Your task to perform on an android device: Search for "acer nitro" on newegg, select the first entry, and add it to the cart. Image 0: 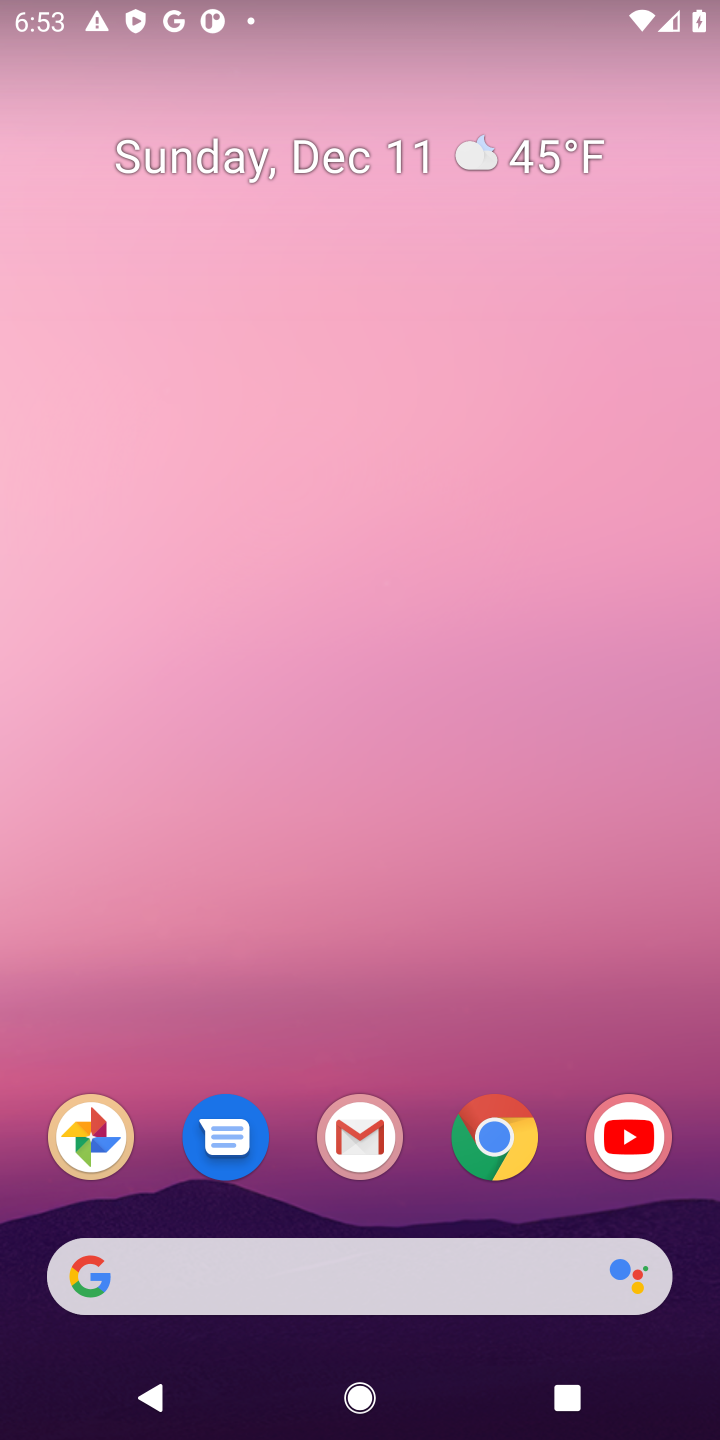
Step 0: click (491, 1153)
Your task to perform on an android device: Search for "acer nitro" on newegg, select the first entry, and add it to the cart. Image 1: 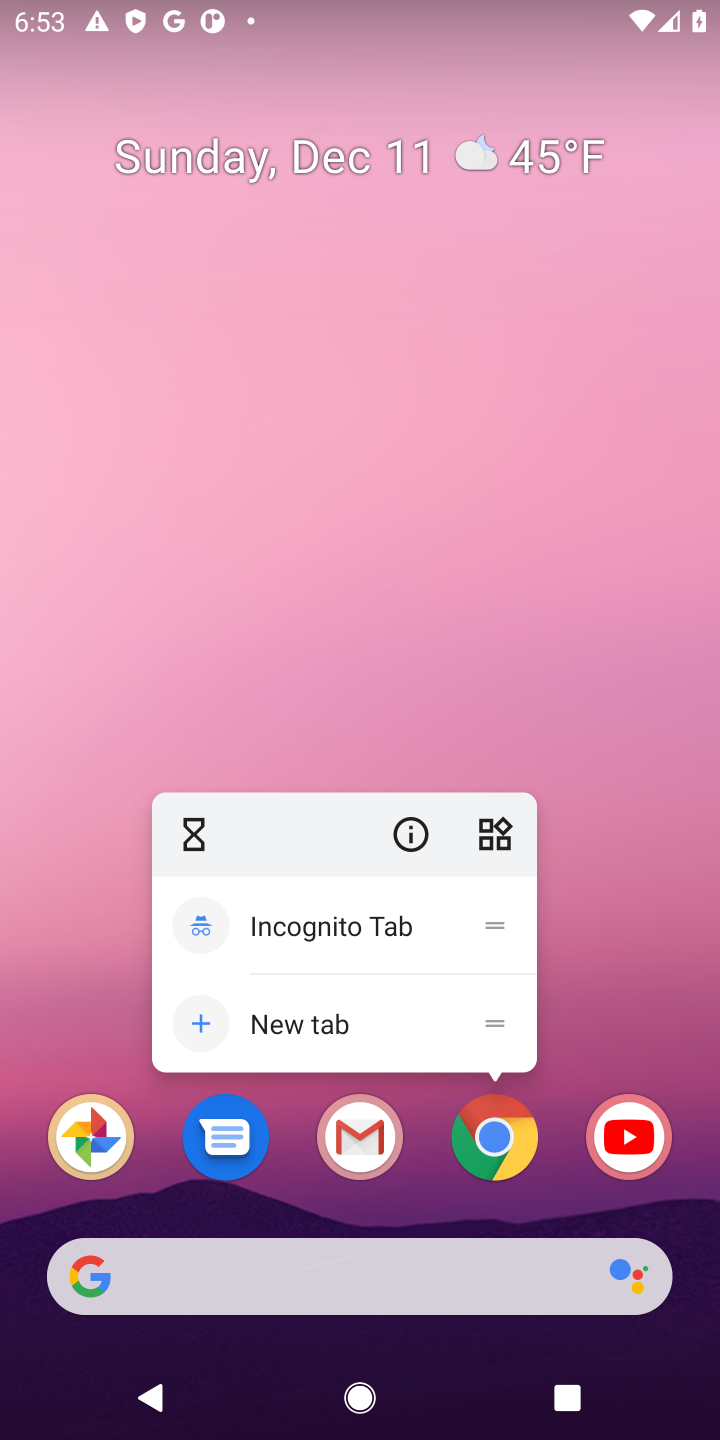
Step 1: click (341, 1012)
Your task to perform on an android device: Search for "acer nitro" on newegg, select the first entry, and add it to the cart. Image 2: 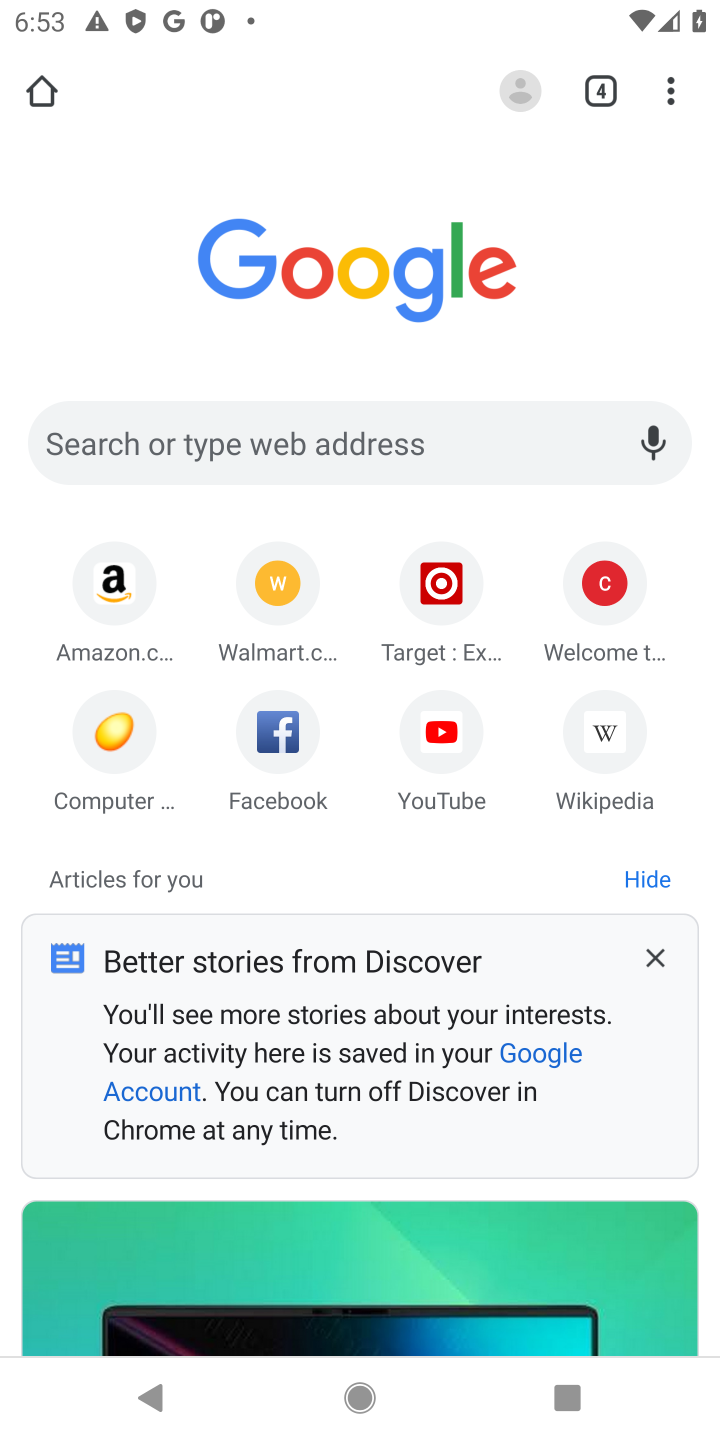
Step 2: click (138, 732)
Your task to perform on an android device: Search for "acer nitro" on newegg, select the first entry, and add it to the cart. Image 3: 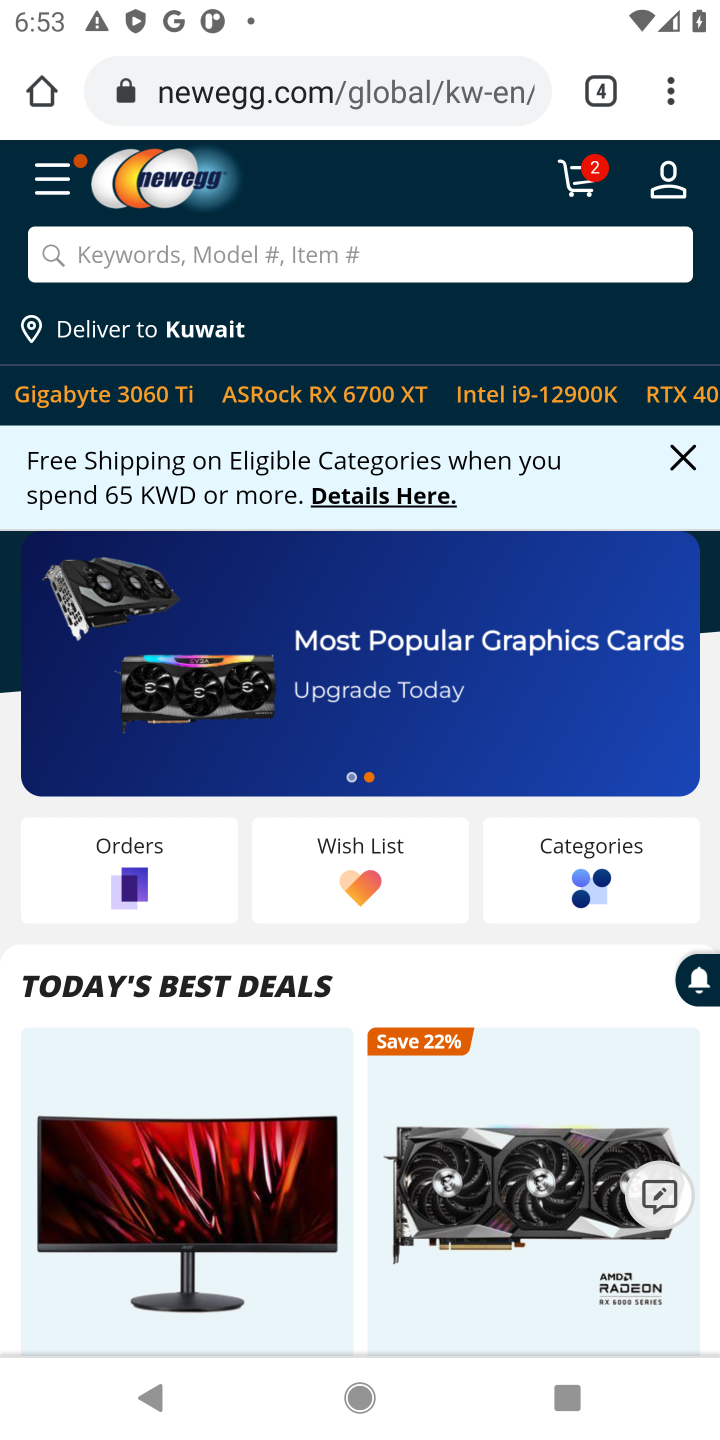
Step 3: click (379, 252)
Your task to perform on an android device: Search for "acer nitro" on newegg, select the first entry, and add it to the cart. Image 4: 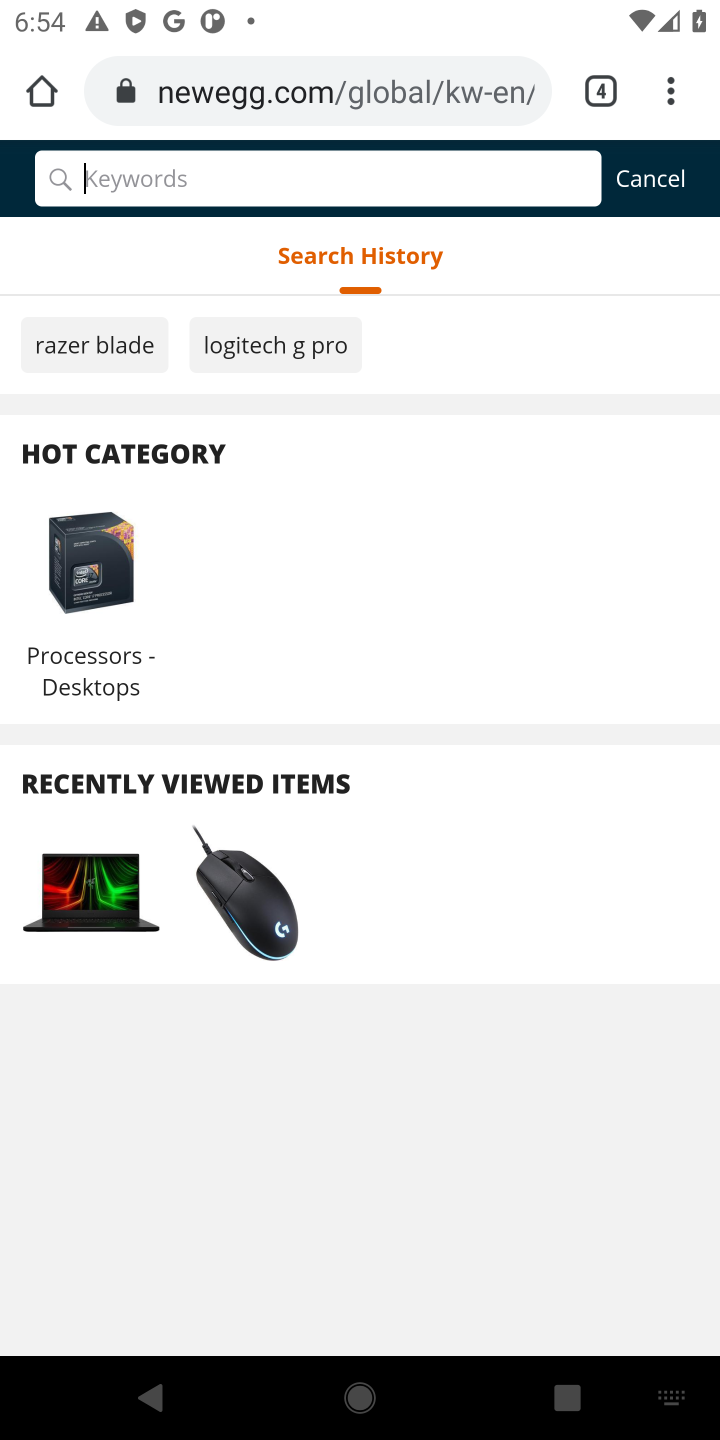
Step 4: type "acer nitro"
Your task to perform on an android device: Search for "acer nitro" on newegg, select the first entry, and add it to the cart. Image 5: 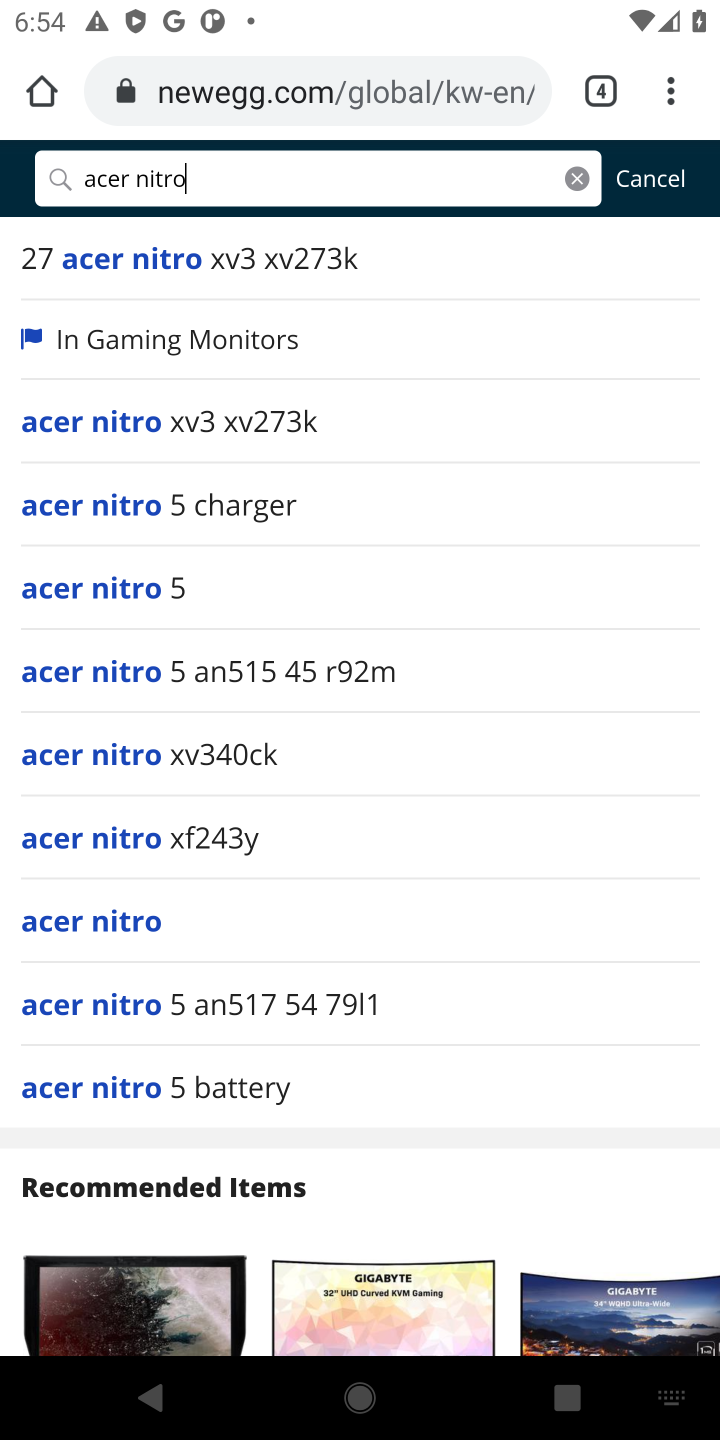
Step 5: click (119, 932)
Your task to perform on an android device: Search for "acer nitro" on newegg, select the first entry, and add it to the cart. Image 6: 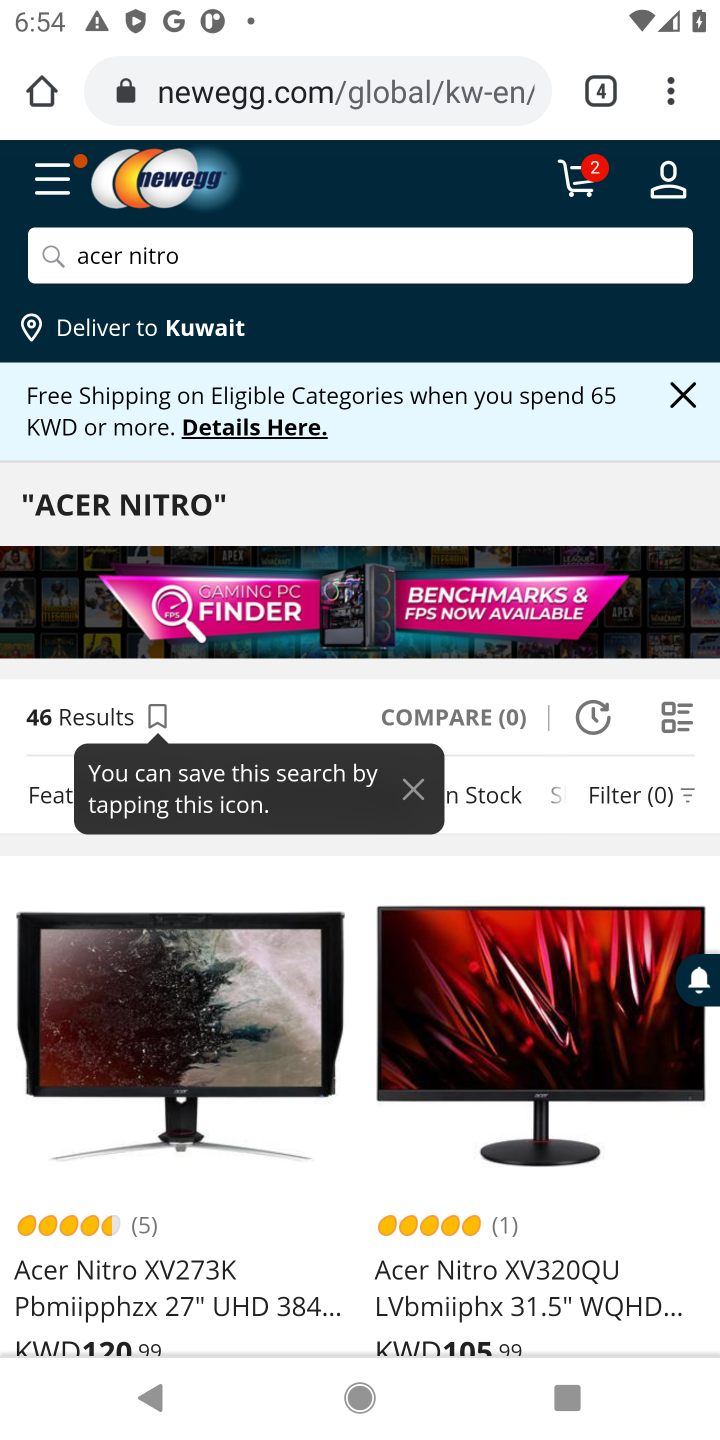
Step 6: click (128, 1262)
Your task to perform on an android device: Search for "acer nitro" on newegg, select the first entry, and add it to the cart. Image 7: 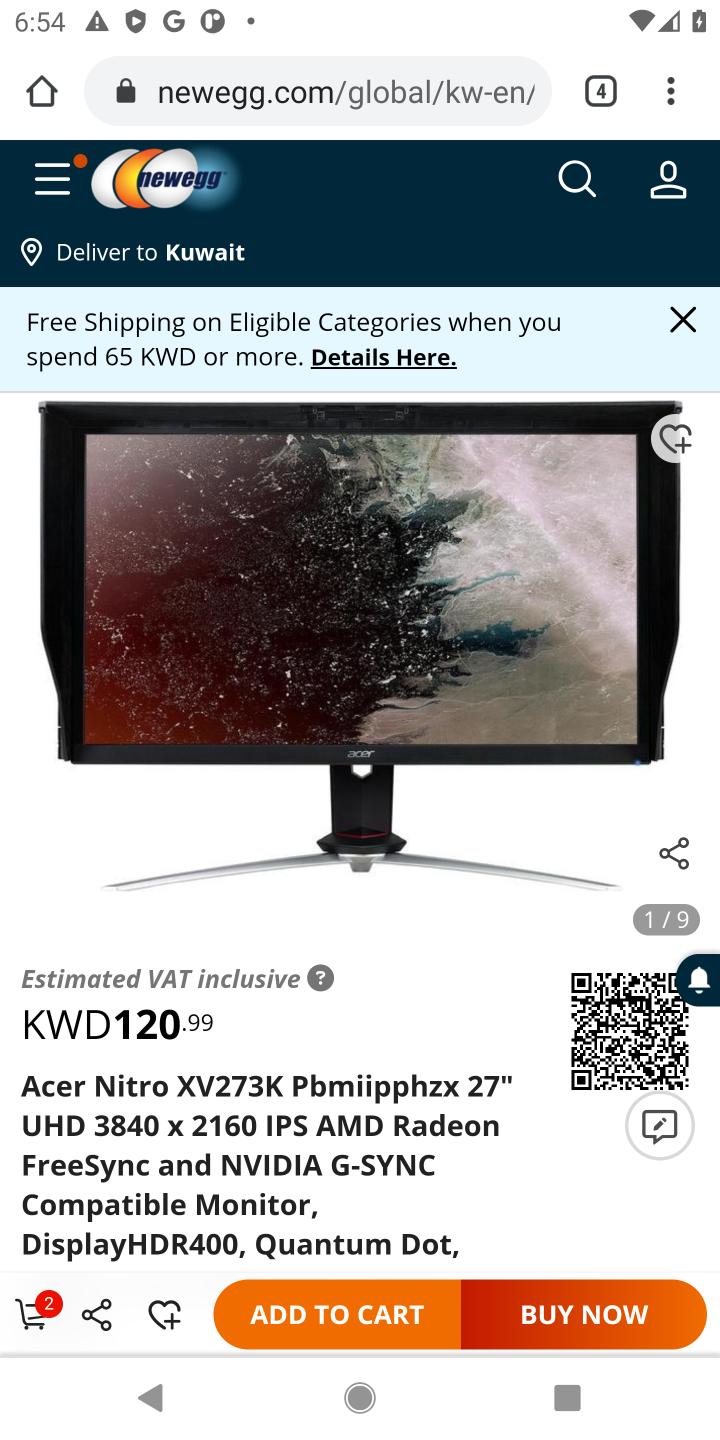
Step 7: click (279, 1309)
Your task to perform on an android device: Search for "acer nitro" on newegg, select the first entry, and add it to the cart. Image 8: 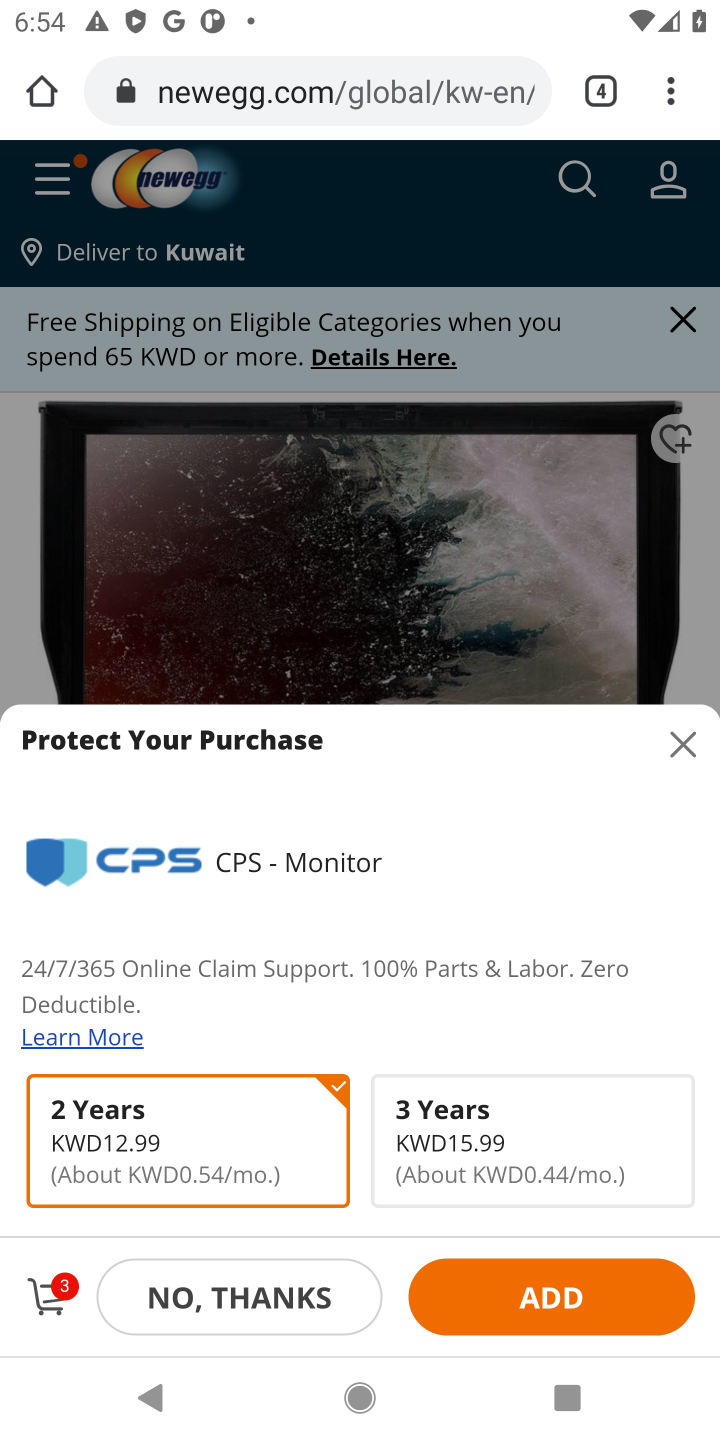
Step 8: task complete